Your task to perform on an android device: check storage Image 0: 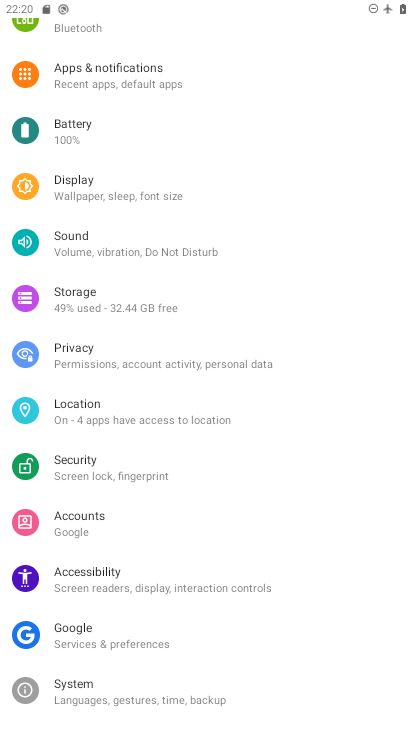
Step 0: click (82, 294)
Your task to perform on an android device: check storage Image 1: 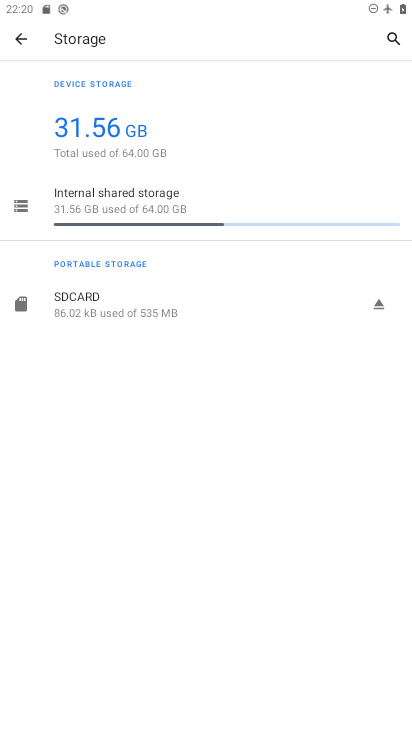
Step 1: task complete